Your task to perform on an android device: open chrome privacy settings Image 0: 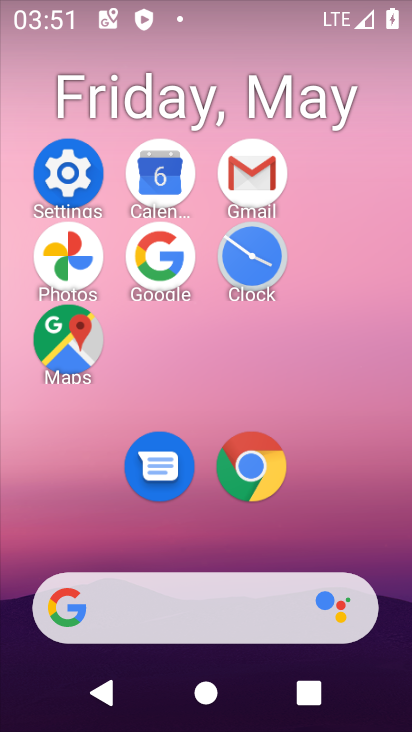
Step 0: click (267, 495)
Your task to perform on an android device: open chrome privacy settings Image 1: 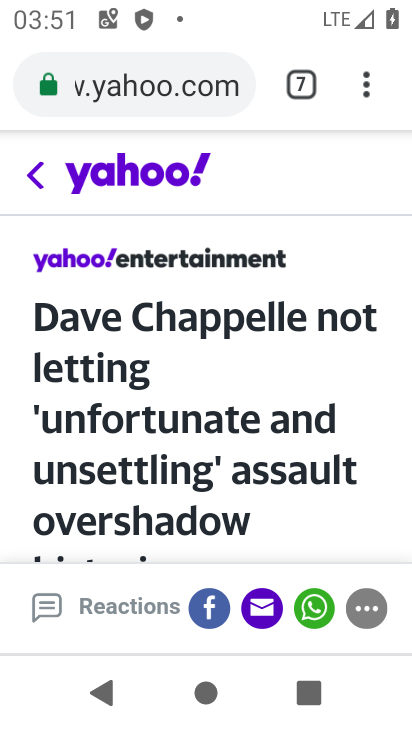
Step 1: click (368, 75)
Your task to perform on an android device: open chrome privacy settings Image 2: 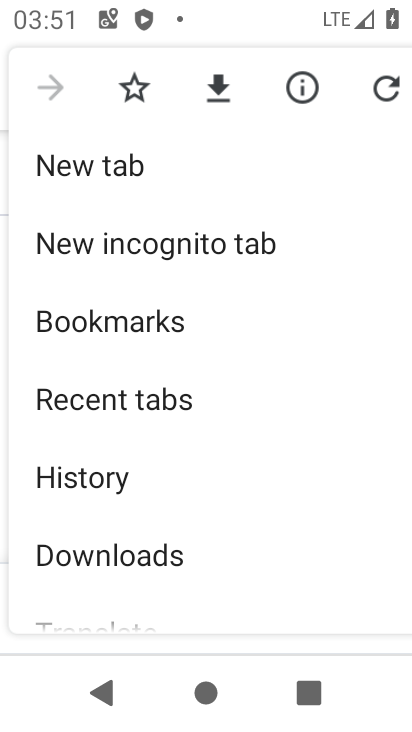
Step 2: drag from (288, 549) to (263, 95)
Your task to perform on an android device: open chrome privacy settings Image 3: 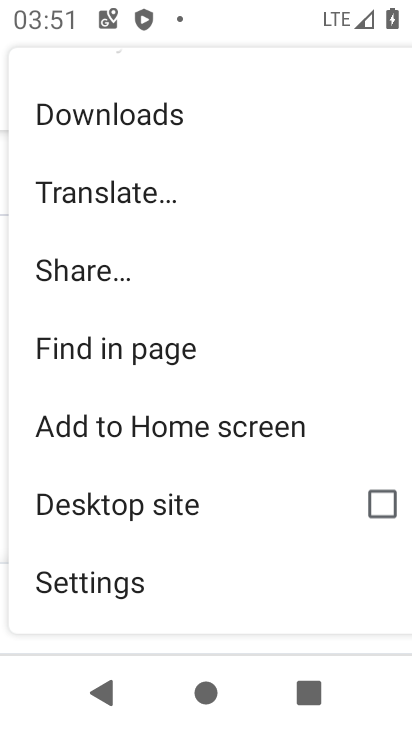
Step 3: click (181, 591)
Your task to perform on an android device: open chrome privacy settings Image 4: 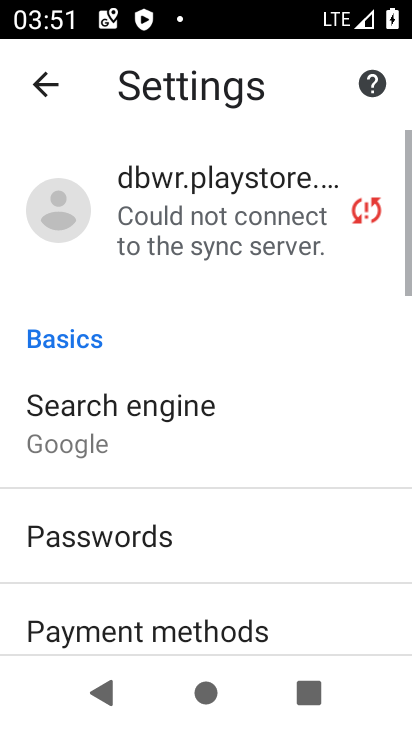
Step 4: drag from (190, 508) to (195, 116)
Your task to perform on an android device: open chrome privacy settings Image 5: 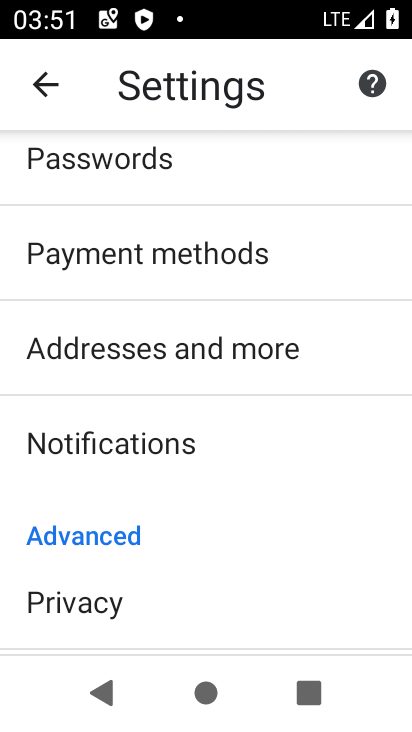
Step 5: click (168, 632)
Your task to perform on an android device: open chrome privacy settings Image 6: 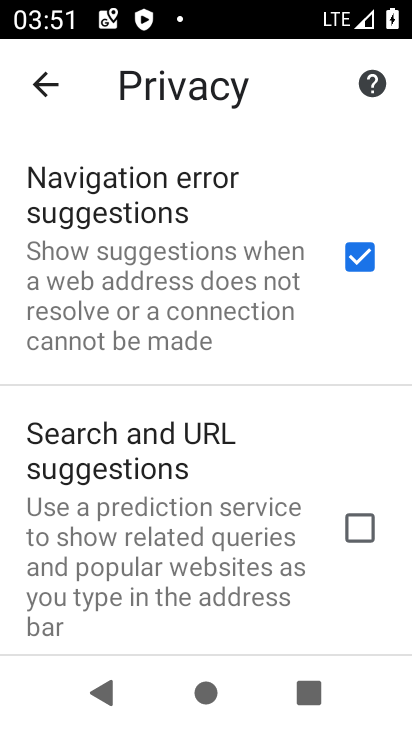
Step 6: task complete